Your task to perform on an android device: Open Maps and search for coffee Image 0: 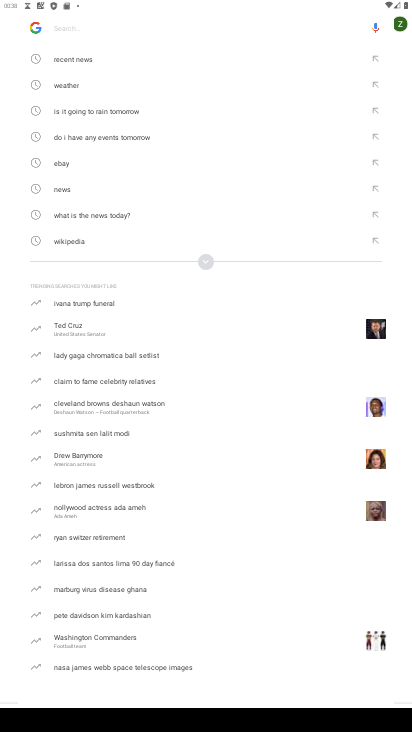
Step 0: press home button
Your task to perform on an android device: Open Maps and search for coffee Image 1: 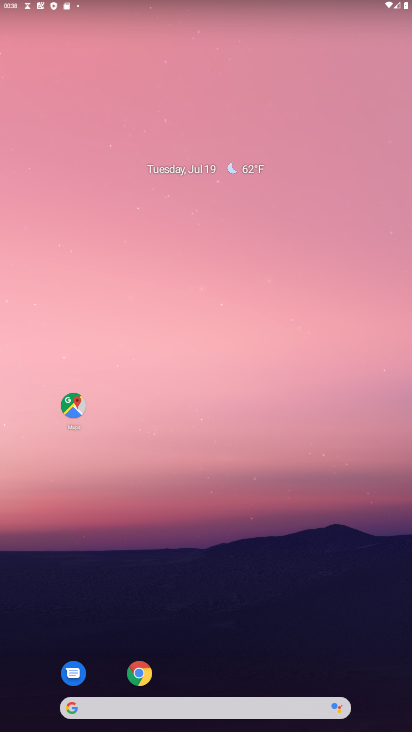
Step 1: click (85, 406)
Your task to perform on an android device: Open Maps and search for coffee Image 2: 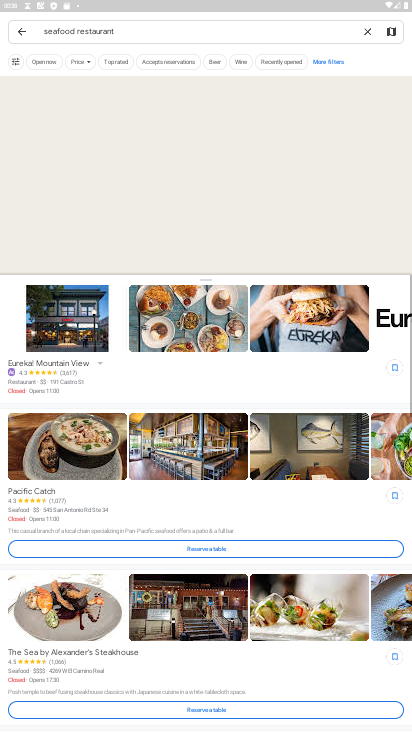
Step 2: click (355, 29)
Your task to perform on an android device: Open Maps and search for coffee Image 3: 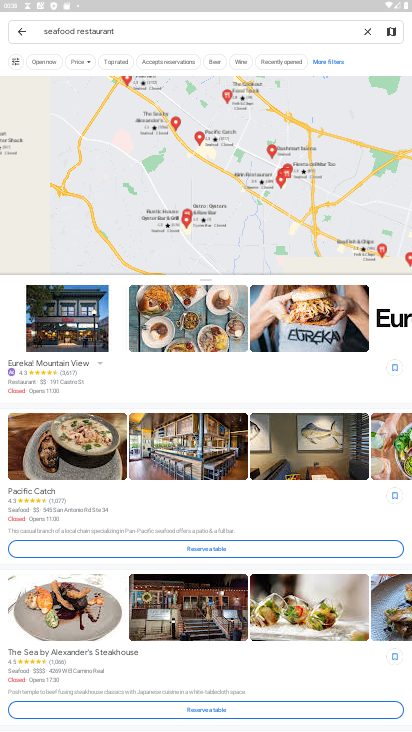
Step 3: click (363, 31)
Your task to perform on an android device: Open Maps and search for coffee Image 4: 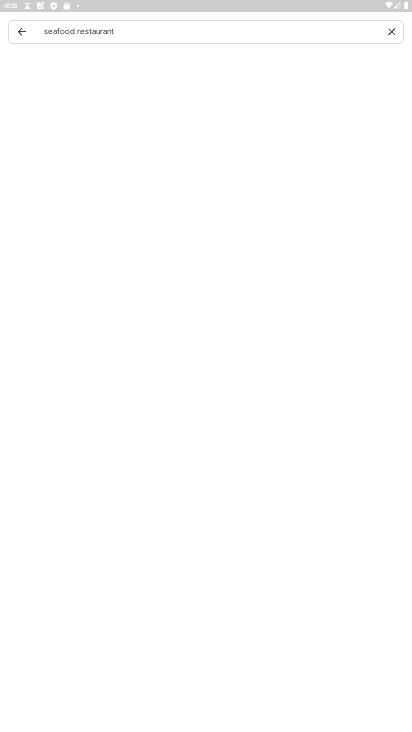
Step 4: click (238, 27)
Your task to perform on an android device: Open Maps and search for coffee Image 5: 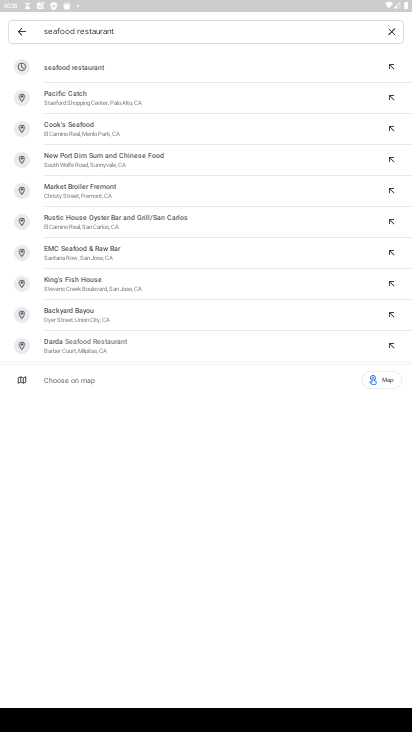
Step 5: click (396, 35)
Your task to perform on an android device: Open Maps and search for coffee Image 6: 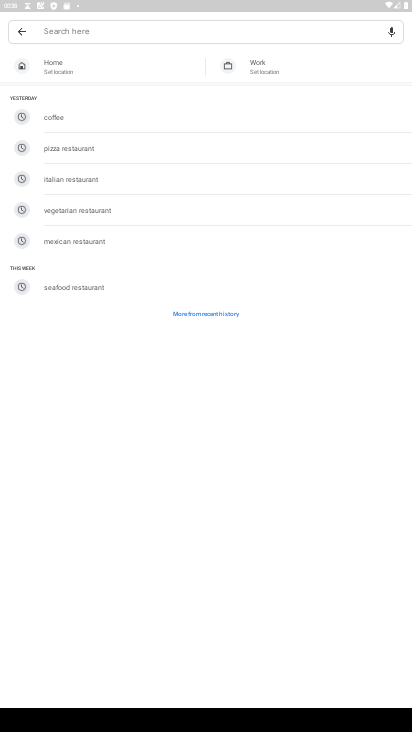
Step 6: click (70, 112)
Your task to perform on an android device: Open Maps and search for coffee Image 7: 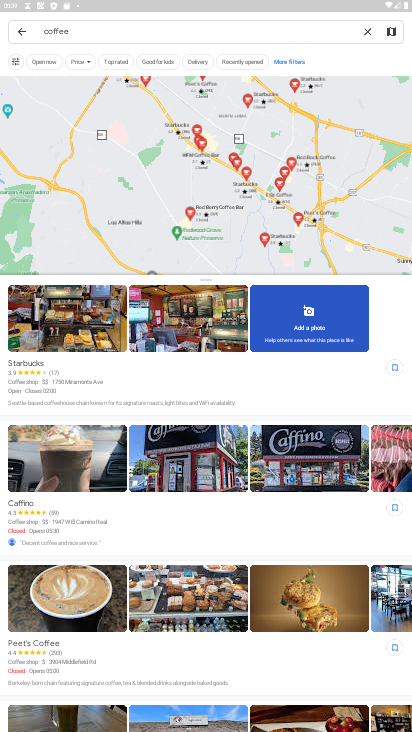
Step 7: task complete